Your task to perform on an android device: turn off data saver in the chrome app Image 0: 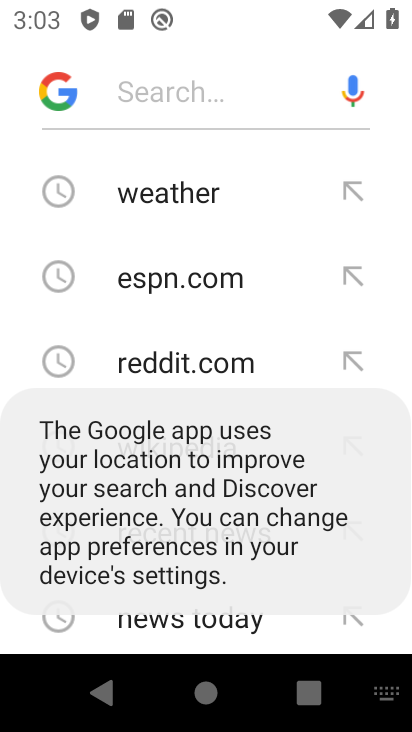
Step 0: press home button
Your task to perform on an android device: turn off data saver in the chrome app Image 1: 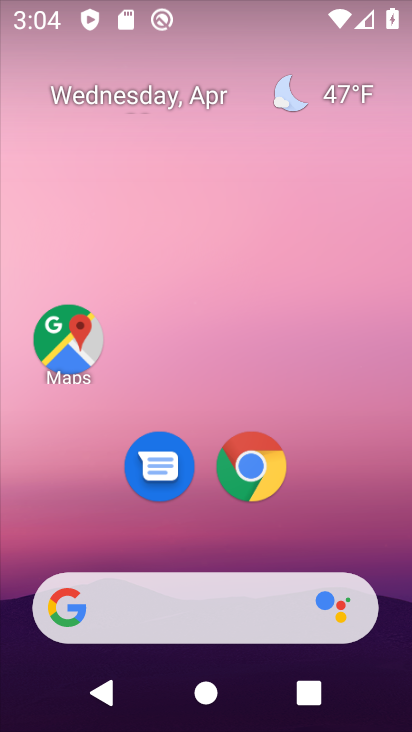
Step 1: click (246, 475)
Your task to perform on an android device: turn off data saver in the chrome app Image 2: 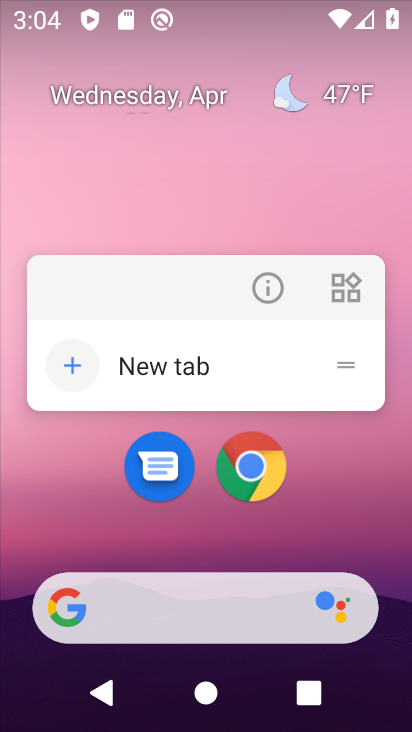
Step 2: click (253, 468)
Your task to perform on an android device: turn off data saver in the chrome app Image 3: 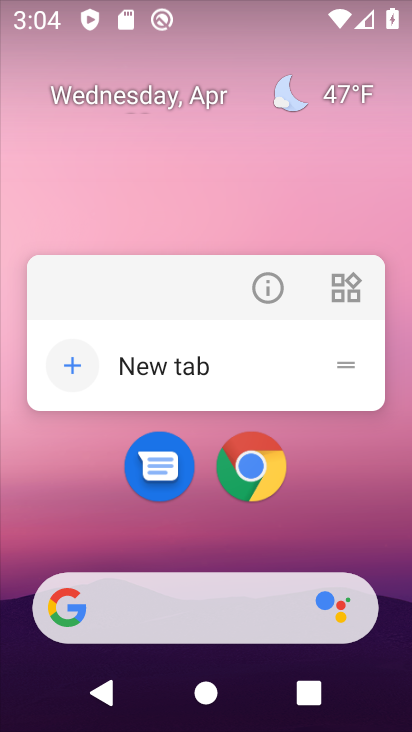
Step 3: click (253, 468)
Your task to perform on an android device: turn off data saver in the chrome app Image 4: 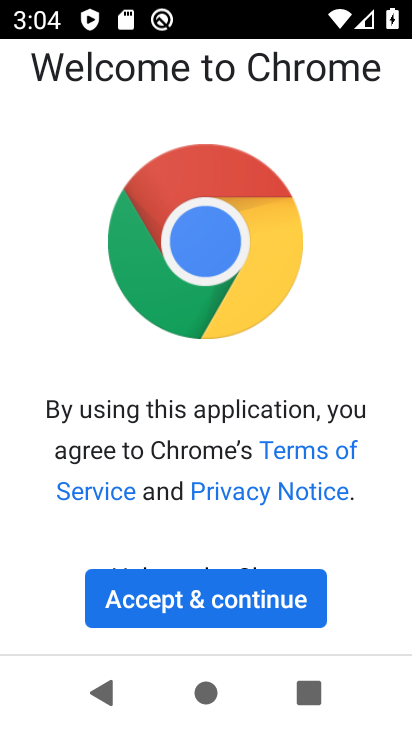
Step 4: click (206, 588)
Your task to perform on an android device: turn off data saver in the chrome app Image 5: 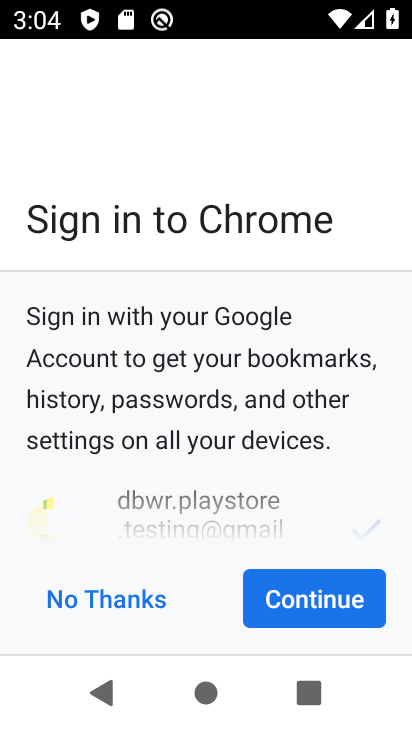
Step 5: click (312, 598)
Your task to perform on an android device: turn off data saver in the chrome app Image 6: 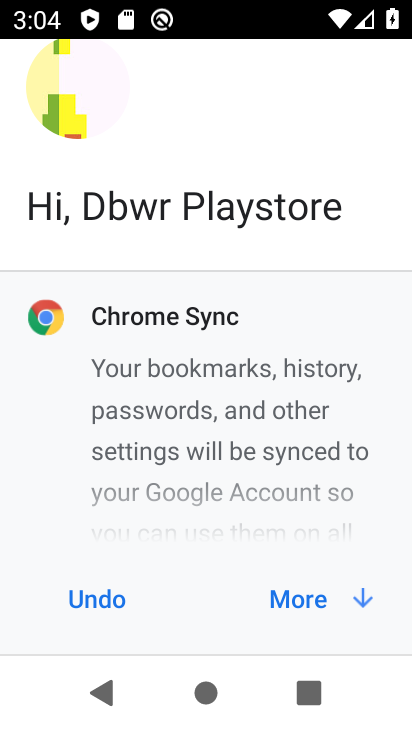
Step 6: click (312, 598)
Your task to perform on an android device: turn off data saver in the chrome app Image 7: 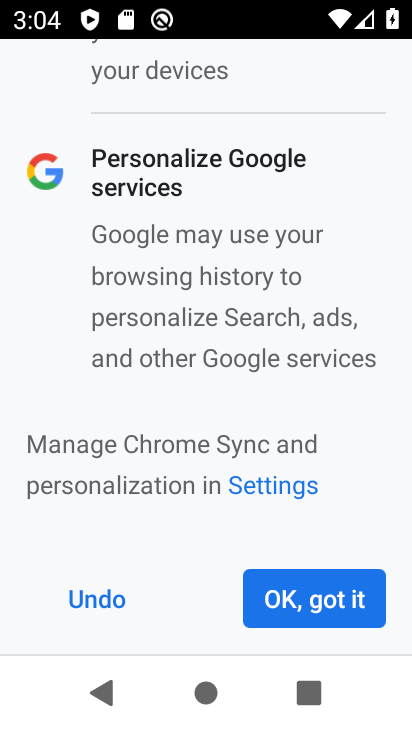
Step 7: click (312, 598)
Your task to perform on an android device: turn off data saver in the chrome app Image 8: 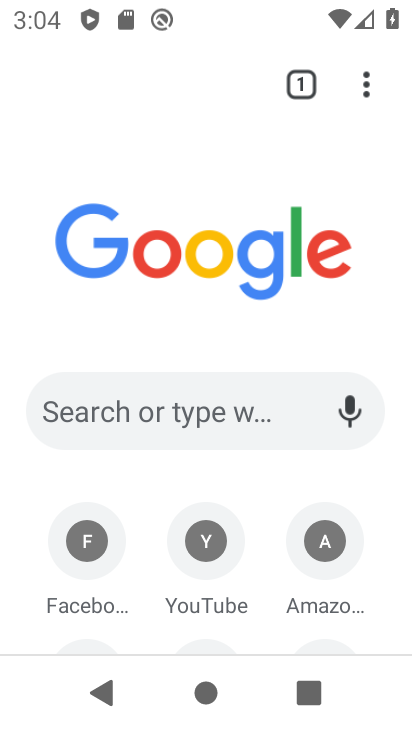
Step 8: drag from (367, 79) to (113, 511)
Your task to perform on an android device: turn off data saver in the chrome app Image 9: 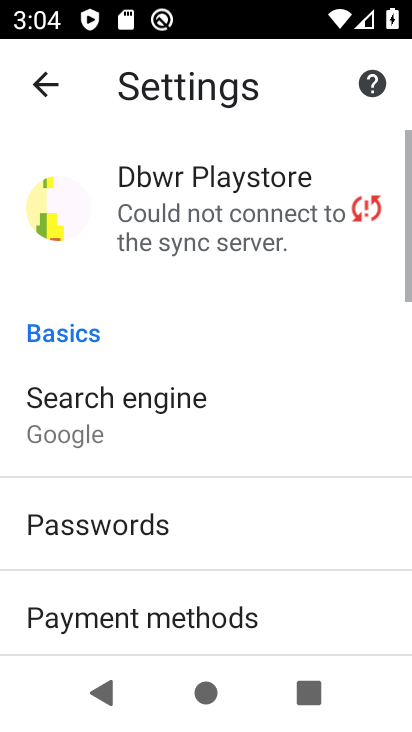
Step 9: drag from (195, 615) to (169, 264)
Your task to perform on an android device: turn off data saver in the chrome app Image 10: 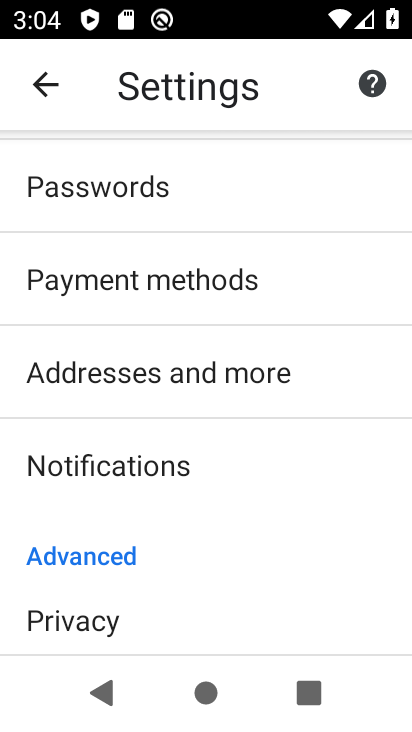
Step 10: drag from (175, 600) to (143, 261)
Your task to perform on an android device: turn off data saver in the chrome app Image 11: 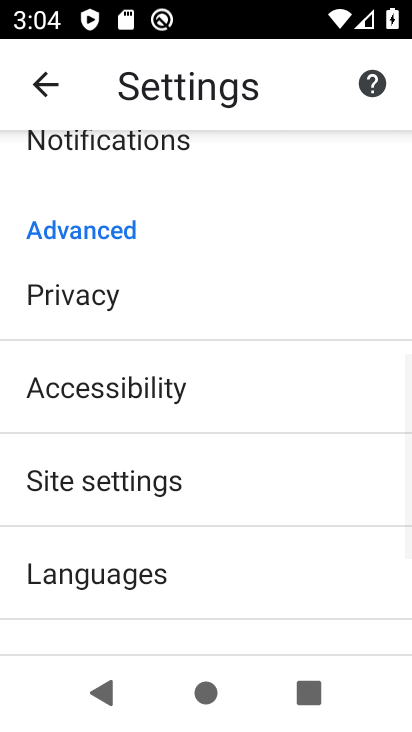
Step 11: drag from (167, 602) to (129, 297)
Your task to perform on an android device: turn off data saver in the chrome app Image 12: 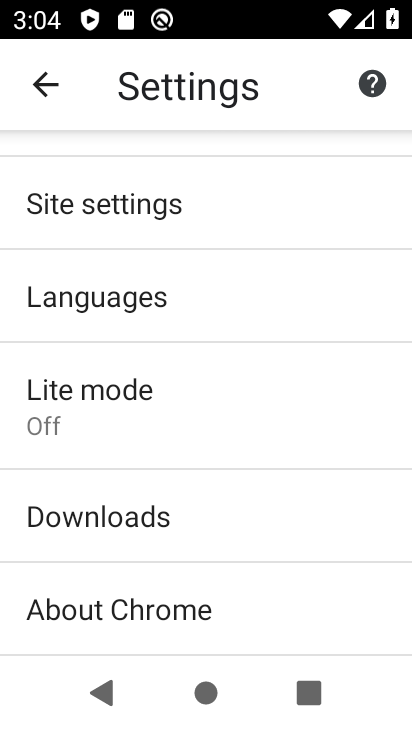
Step 12: click (88, 388)
Your task to perform on an android device: turn off data saver in the chrome app Image 13: 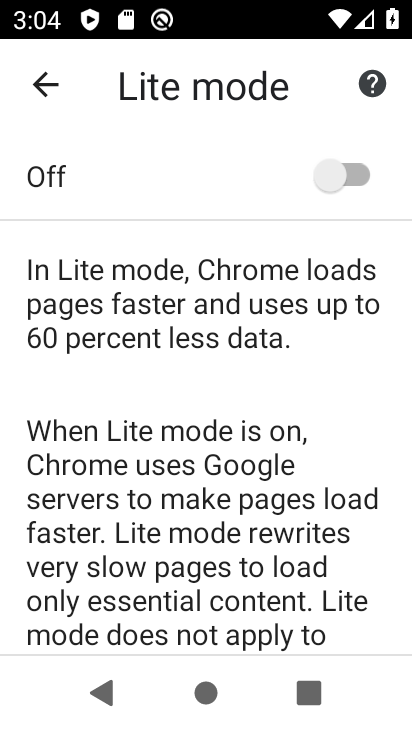
Step 13: task complete